Your task to perform on an android device: Search for "rayovac triple a" on newegg, select the first entry, add it to the cart, then select checkout. Image 0: 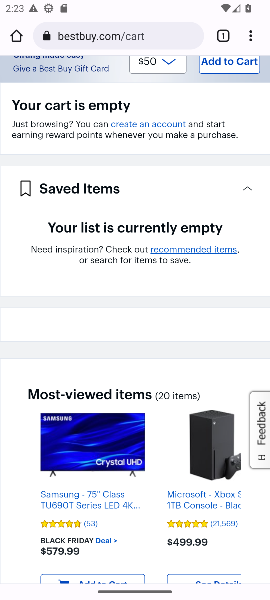
Step 0: press home button
Your task to perform on an android device: Search for "rayovac triple a" on newegg, select the first entry, add it to the cart, then select checkout. Image 1: 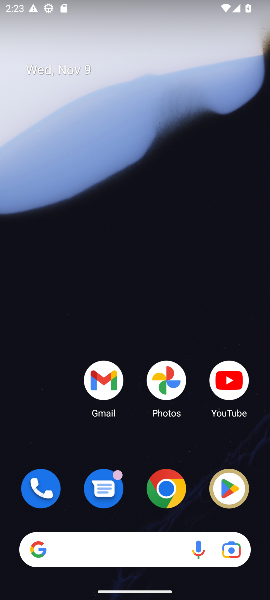
Step 1: drag from (134, 464) to (258, 58)
Your task to perform on an android device: Search for "rayovac triple a" on newegg, select the first entry, add it to the cart, then select checkout. Image 2: 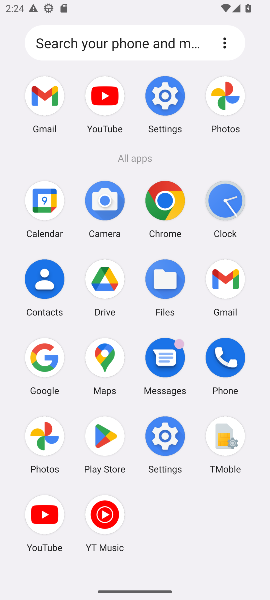
Step 2: click (158, 204)
Your task to perform on an android device: Search for "rayovac triple a" on newegg, select the first entry, add it to the cart, then select checkout. Image 3: 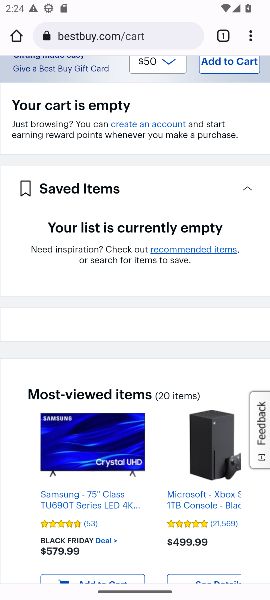
Step 3: click (121, 42)
Your task to perform on an android device: Search for "rayovac triple a" on newegg, select the first entry, add it to the cart, then select checkout. Image 4: 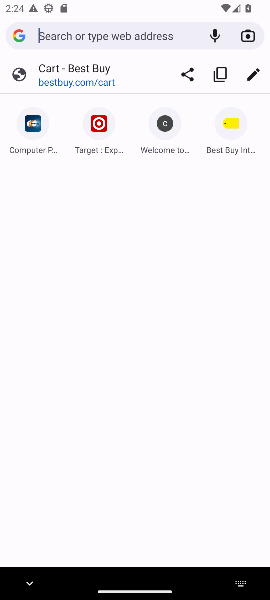
Step 4: type "newegg.com"
Your task to perform on an android device: Search for "rayovac triple a" on newegg, select the first entry, add it to the cart, then select checkout. Image 5: 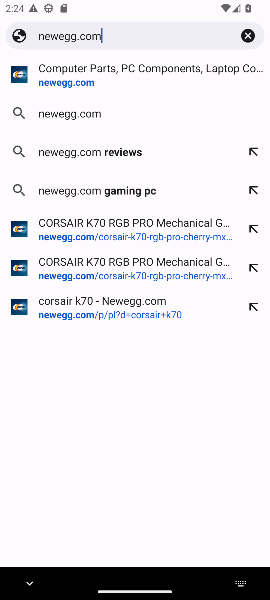
Step 5: press enter
Your task to perform on an android device: Search for "rayovac triple a" on newegg, select the first entry, add it to the cart, then select checkout. Image 6: 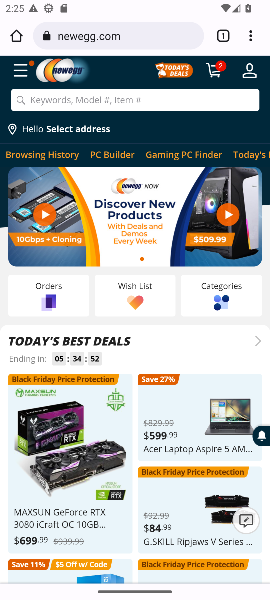
Step 6: click (208, 93)
Your task to perform on an android device: Search for "rayovac triple a" on newegg, select the first entry, add it to the cart, then select checkout. Image 7: 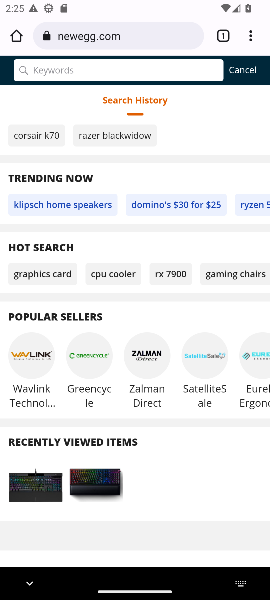
Step 7: type "rayovac triple a"
Your task to perform on an android device: Search for "rayovac triple a" on newegg, select the first entry, add it to the cart, then select checkout. Image 8: 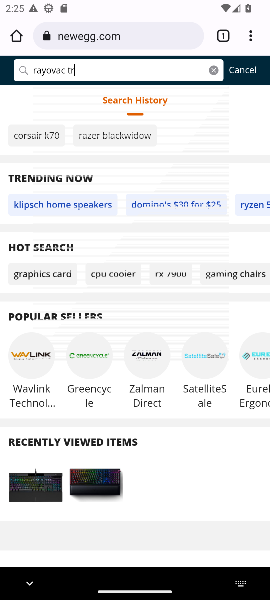
Step 8: press enter
Your task to perform on an android device: Search for "rayovac triple a" on newegg, select the first entry, add it to the cart, then select checkout. Image 9: 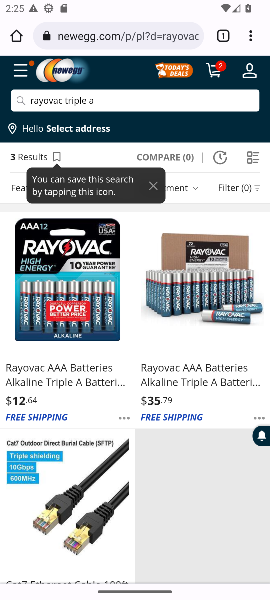
Step 9: click (90, 348)
Your task to perform on an android device: Search for "rayovac triple a" on newegg, select the first entry, add it to the cart, then select checkout. Image 10: 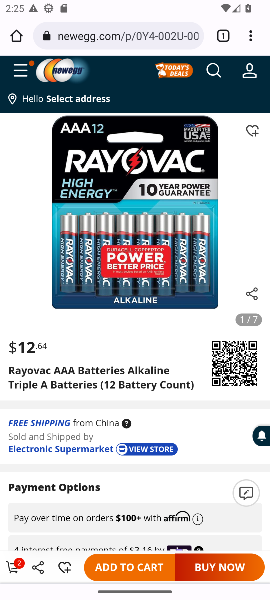
Step 10: click (114, 573)
Your task to perform on an android device: Search for "rayovac triple a" on newegg, select the first entry, add it to the cart, then select checkout. Image 11: 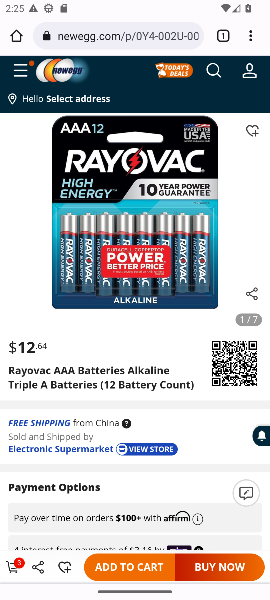
Step 11: click (9, 561)
Your task to perform on an android device: Search for "rayovac triple a" on newegg, select the first entry, add it to the cart, then select checkout. Image 12: 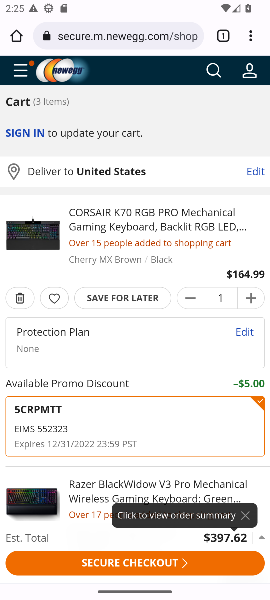
Step 12: drag from (132, 448) to (178, 267)
Your task to perform on an android device: Search for "rayovac triple a" on newegg, select the first entry, add it to the cart, then select checkout. Image 13: 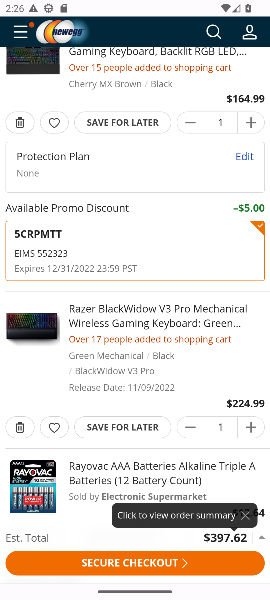
Step 13: click (142, 570)
Your task to perform on an android device: Search for "rayovac triple a" on newegg, select the first entry, add it to the cart, then select checkout. Image 14: 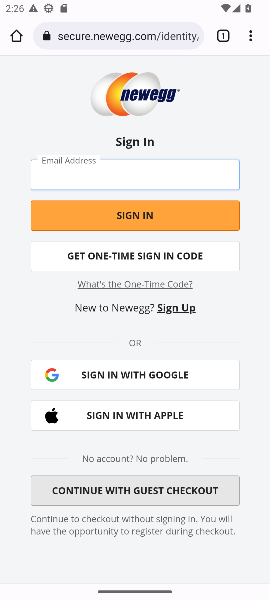
Step 14: task complete